Your task to perform on an android device: Search for pizza restaurants on Maps Image 0: 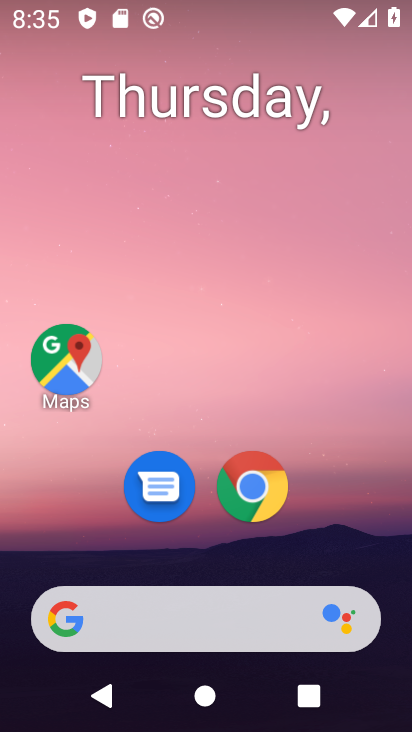
Step 0: click (67, 353)
Your task to perform on an android device: Search for pizza restaurants on Maps Image 1: 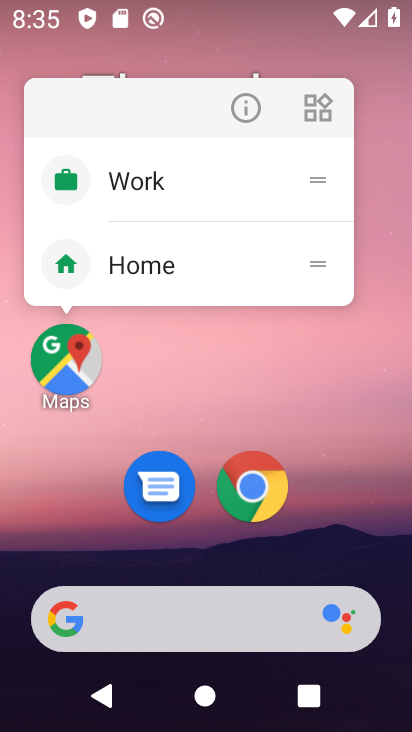
Step 1: click (53, 373)
Your task to perform on an android device: Search for pizza restaurants on Maps Image 2: 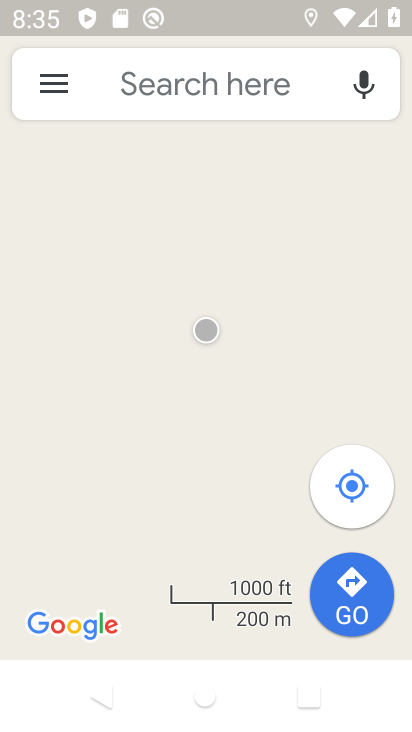
Step 2: click (183, 80)
Your task to perform on an android device: Search for pizza restaurants on Maps Image 3: 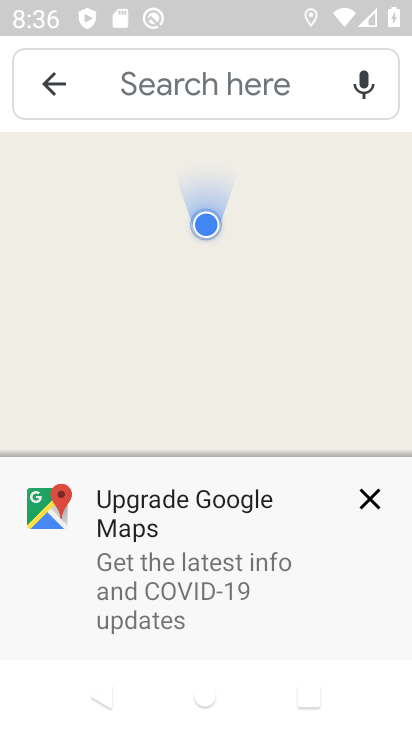
Step 3: click (192, 87)
Your task to perform on an android device: Search for pizza restaurants on Maps Image 4: 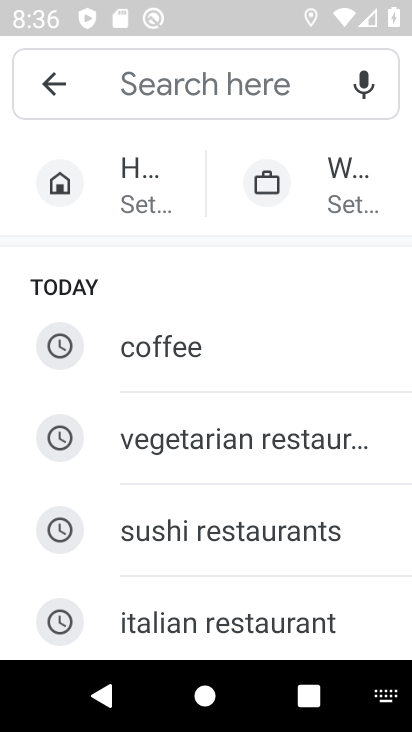
Step 4: type "pizza"
Your task to perform on an android device: Search for pizza restaurants on Maps Image 5: 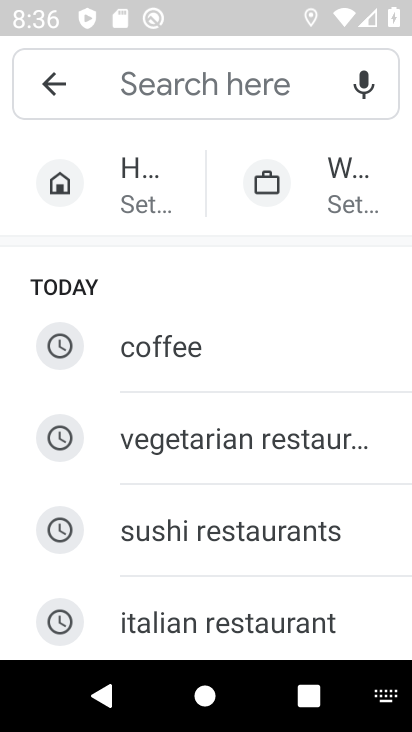
Step 5: drag from (283, 248) to (283, 187)
Your task to perform on an android device: Search for pizza restaurants on Maps Image 6: 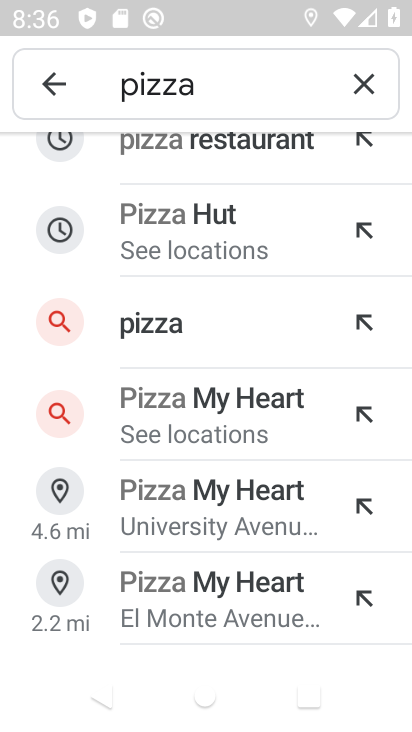
Step 6: click (232, 139)
Your task to perform on an android device: Search for pizza restaurants on Maps Image 7: 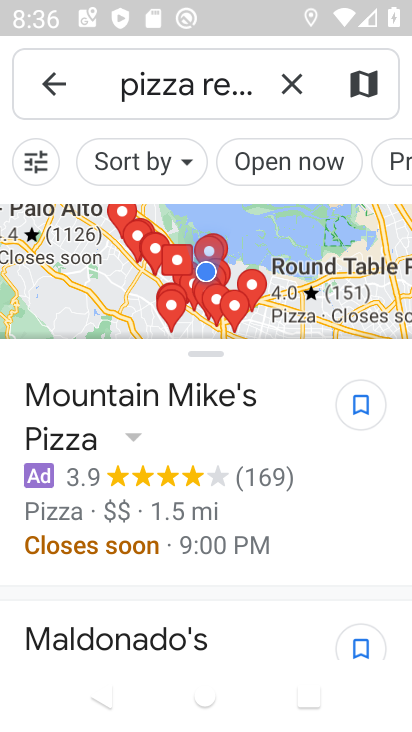
Step 7: task complete